Your task to perform on an android device: toggle data saver in the chrome app Image 0: 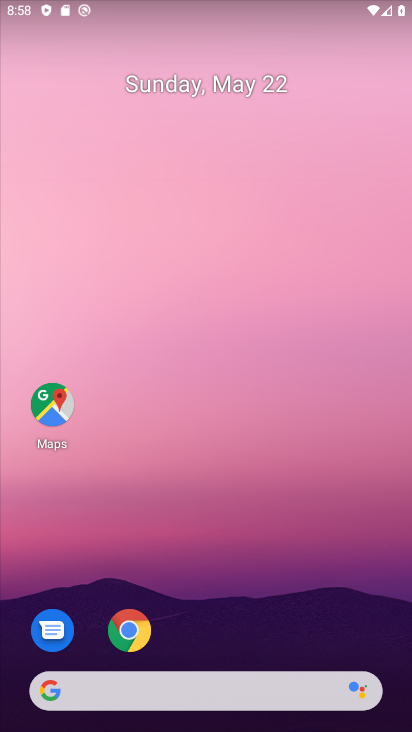
Step 0: click (129, 627)
Your task to perform on an android device: toggle data saver in the chrome app Image 1: 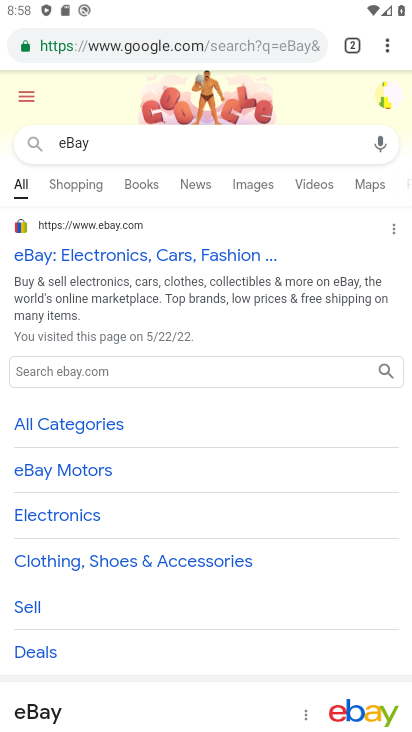
Step 1: click (382, 44)
Your task to perform on an android device: toggle data saver in the chrome app Image 2: 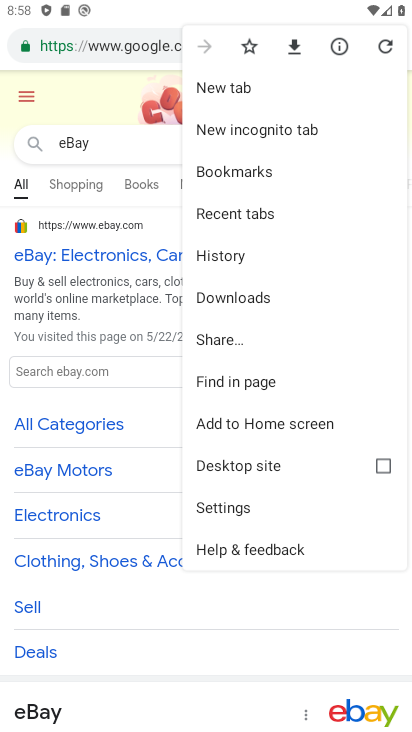
Step 2: drag from (321, 534) to (333, 159)
Your task to perform on an android device: toggle data saver in the chrome app Image 3: 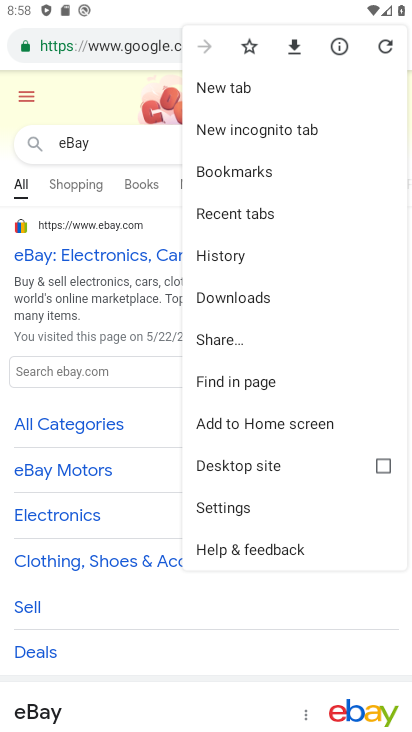
Step 3: click (238, 515)
Your task to perform on an android device: toggle data saver in the chrome app Image 4: 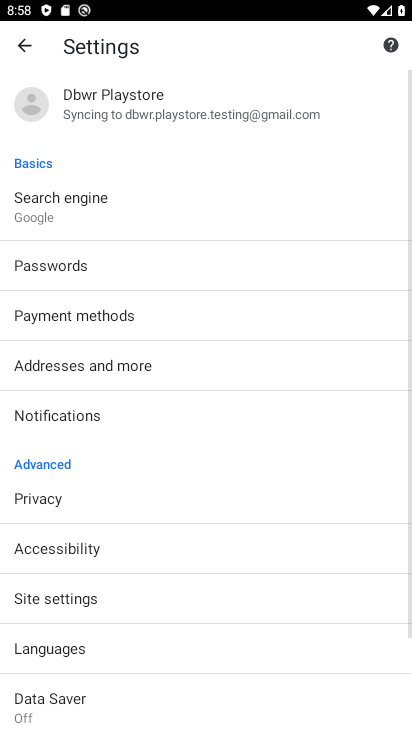
Step 4: drag from (247, 700) to (232, 382)
Your task to perform on an android device: toggle data saver in the chrome app Image 5: 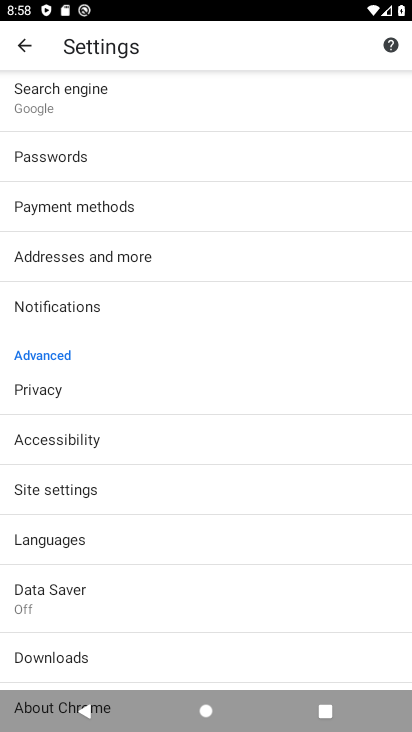
Step 5: click (34, 597)
Your task to perform on an android device: toggle data saver in the chrome app Image 6: 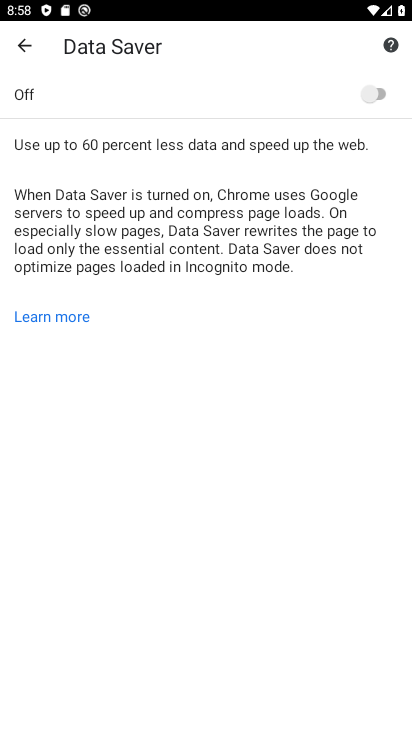
Step 6: click (382, 90)
Your task to perform on an android device: toggle data saver in the chrome app Image 7: 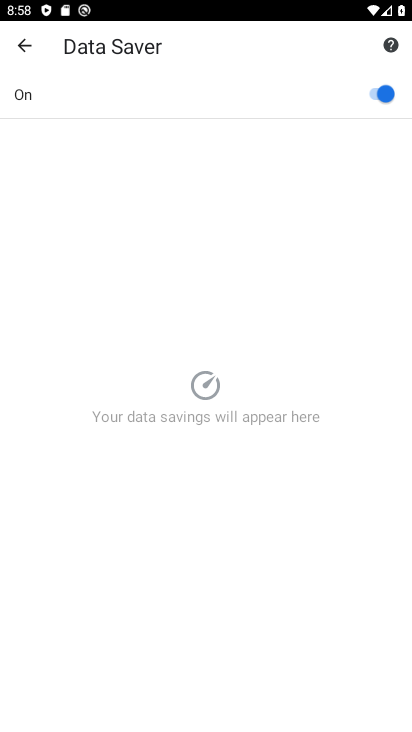
Step 7: task complete